Your task to perform on an android device: Open sound settings Image 0: 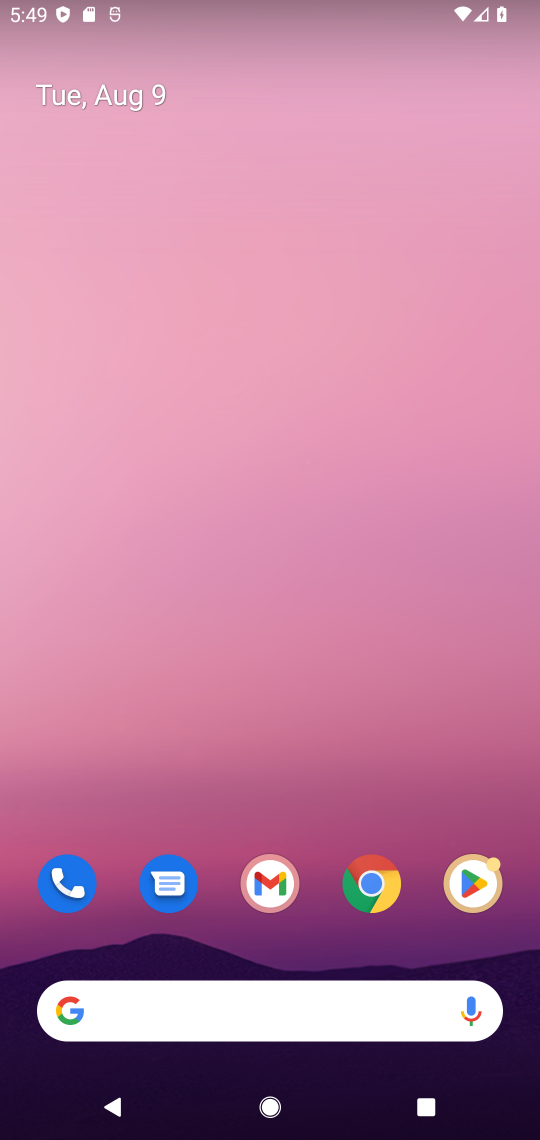
Step 0: drag from (227, 551) to (227, 190)
Your task to perform on an android device: Open sound settings Image 1: 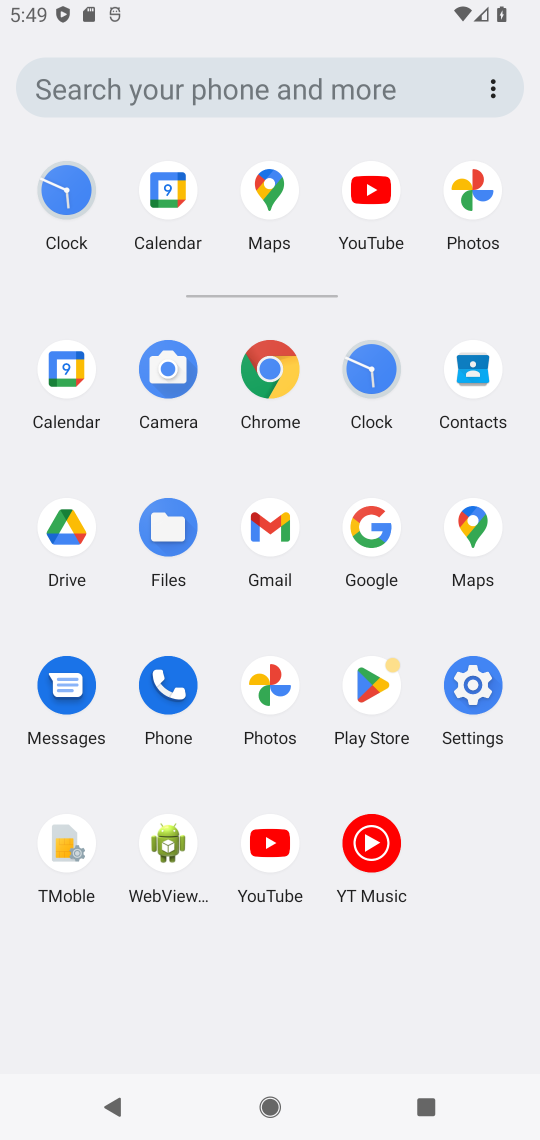
Step 1: click (458, 701)
Your task to perform on an android device: Open sound settings Image 2: 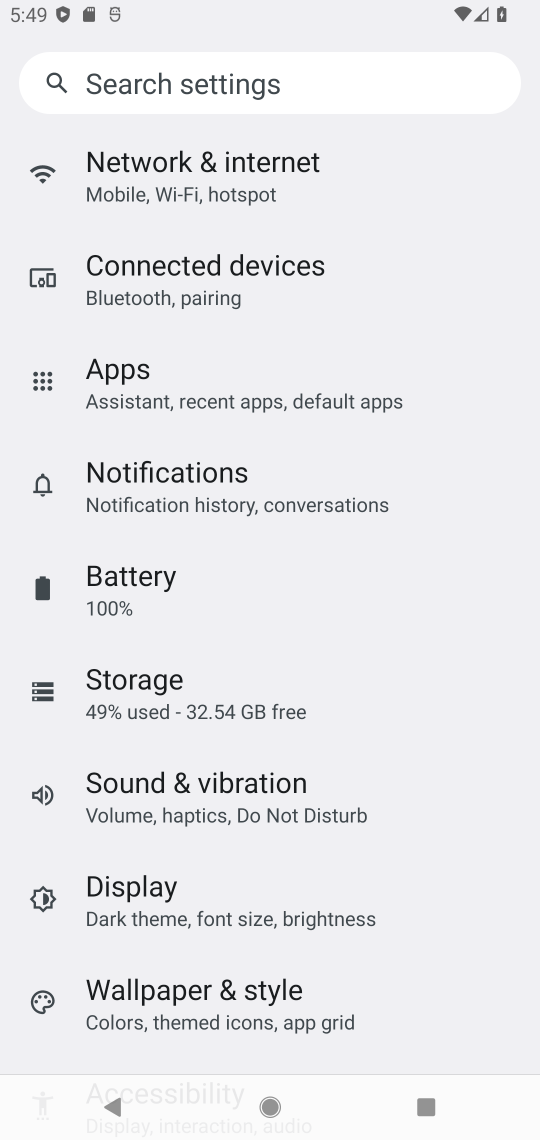
Step 2: drag from (243, 891) to (295, 464)
Your task to perform on an android device: Open sound settings Image 3: 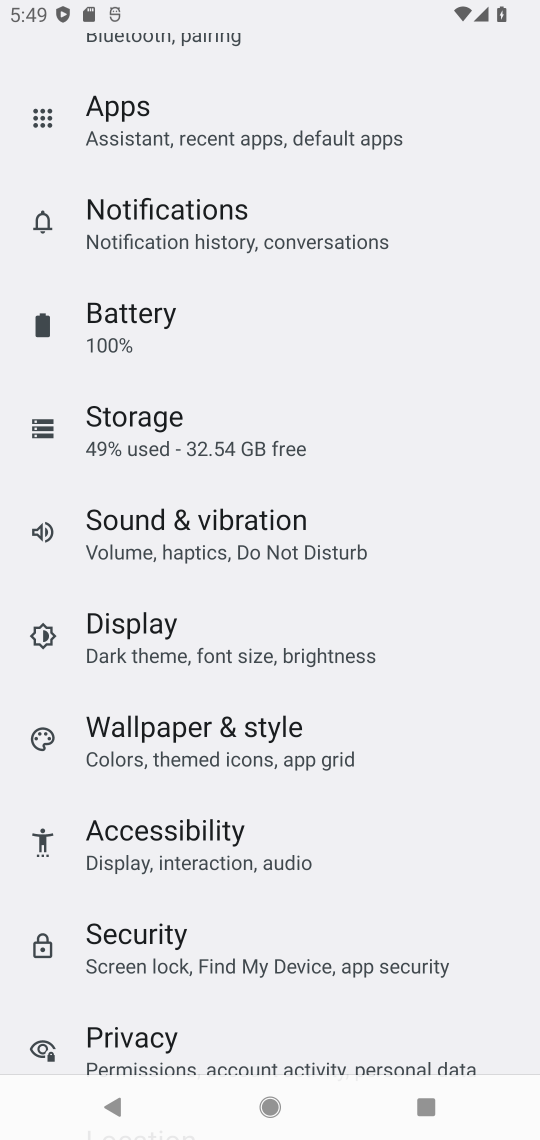
Step 3: drag from (241, 801) to (256, 294)
Your task to perform on an android device: Open sound settings Image 4: 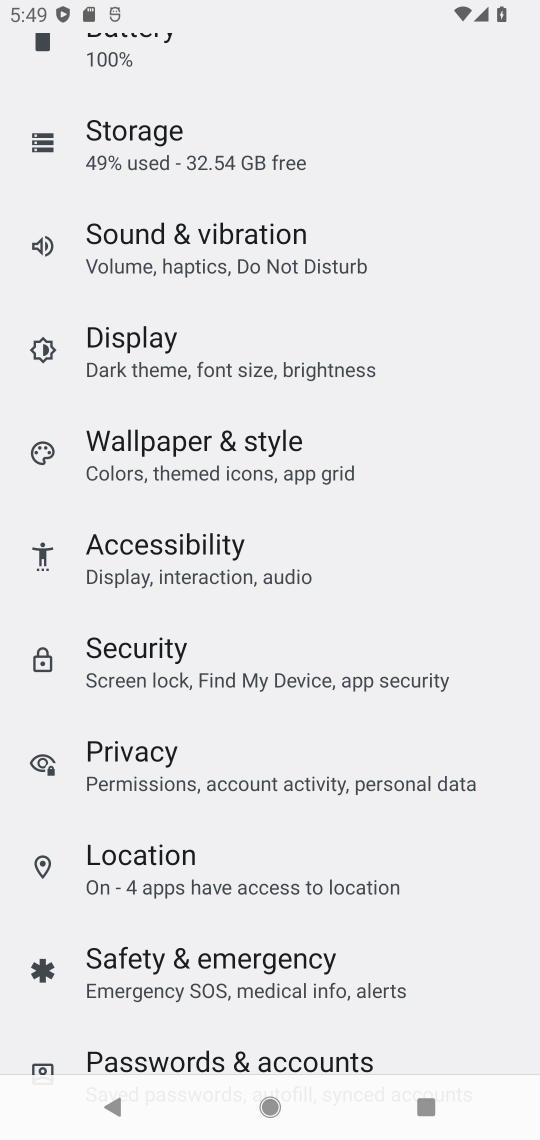
Step 4: drag from (300, 647) to (319, 297)
Your task to perform on an android device: Open sound settings Image 5: 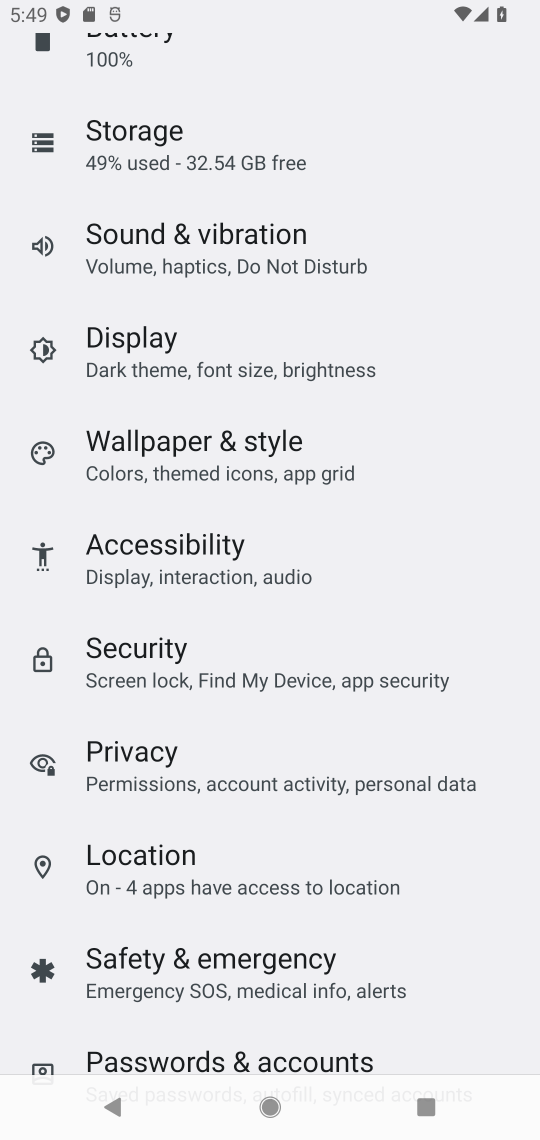
Step 5: drag from (321, 876) to (321, 934)
Your task to perform on an android device: Open sound settings Image 6: 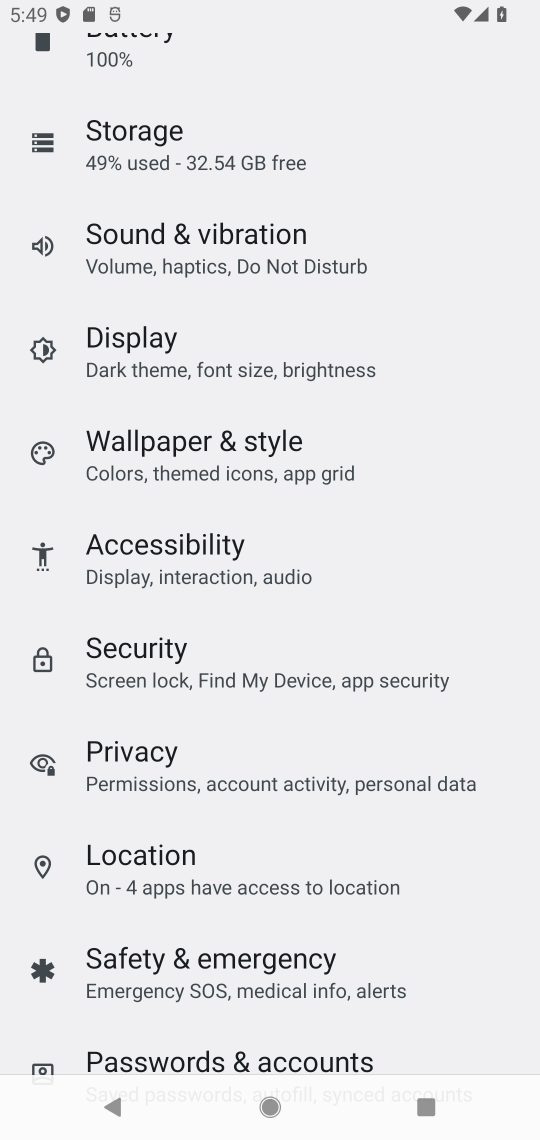
Step 6: drag from (253, 596) to (255, 897)
Your task to perform on an android device: Open sound settings Image 7: 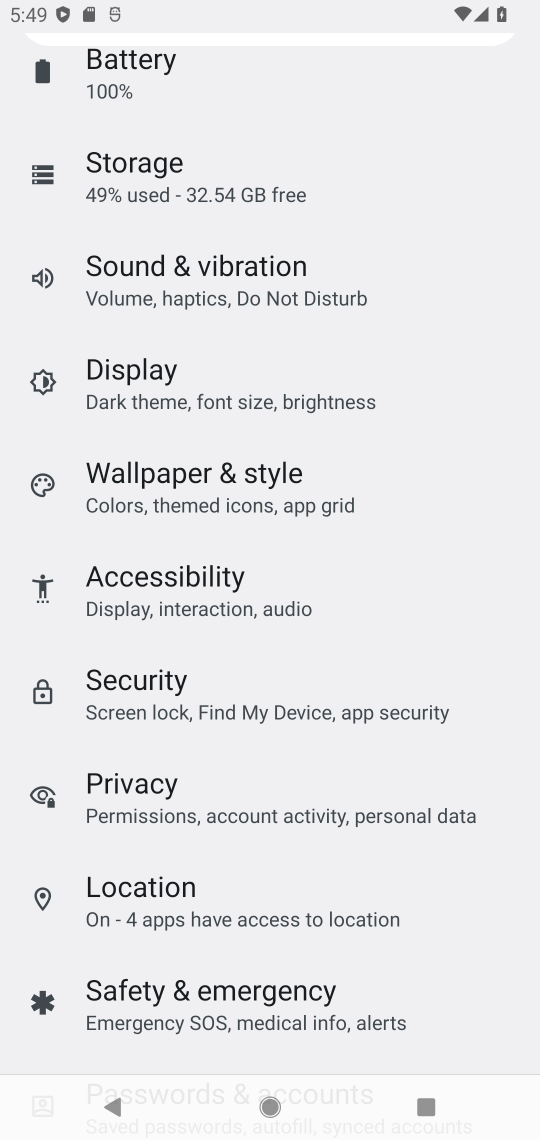
Step 7: drag from (278, 658) to (289, 969)
Your task to perform on an android device: Open sound settings Image 8: 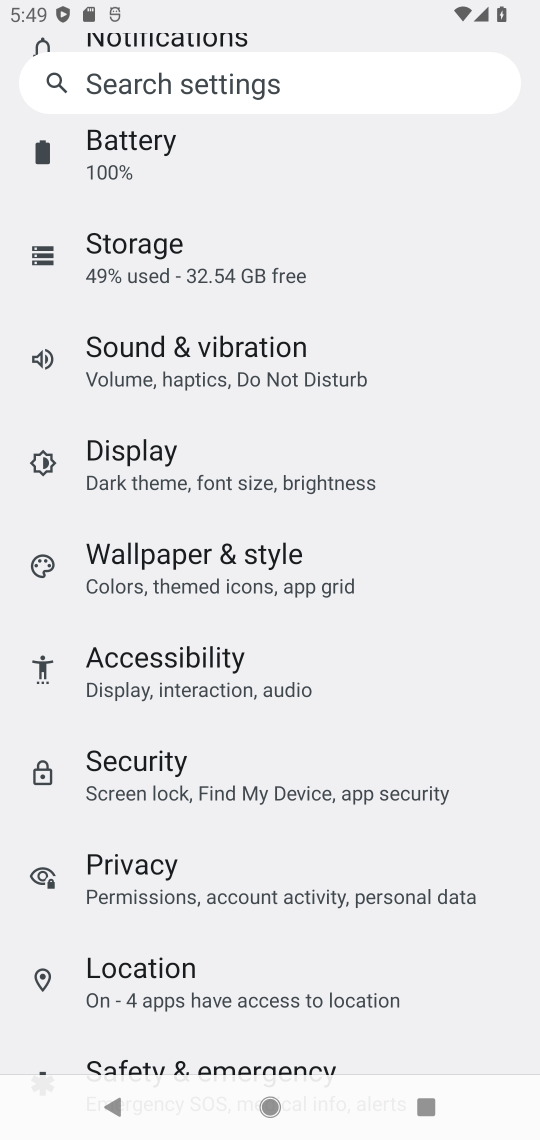
Step 8: drag from (236, 356) to (247, 791)
Your task to perform on an android device: Open sound settings Image 9: 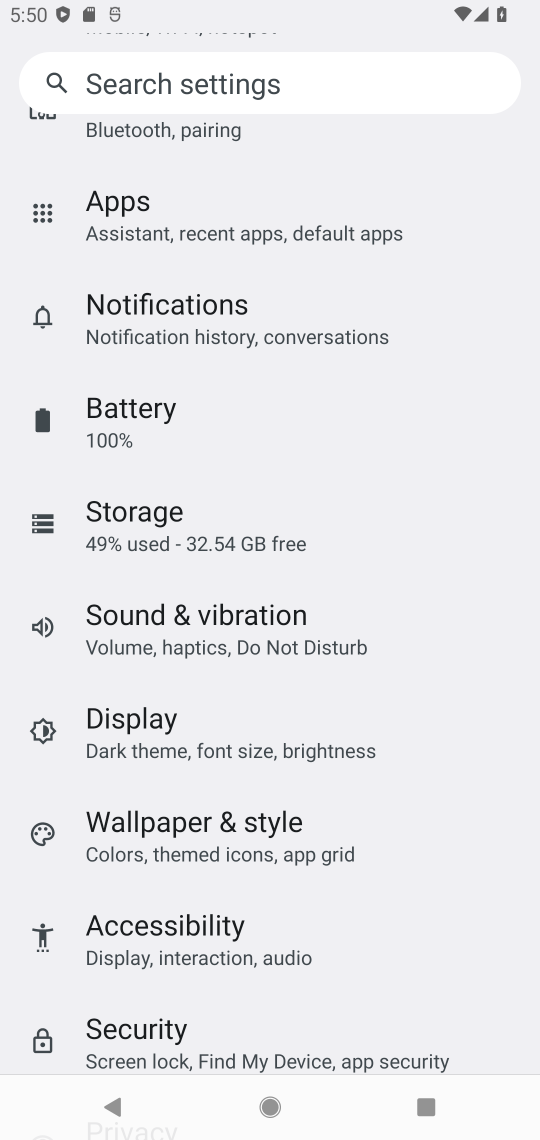
Step 9: click (210, 634)
Your task to perform on an android device: Open sound settings Image 10: 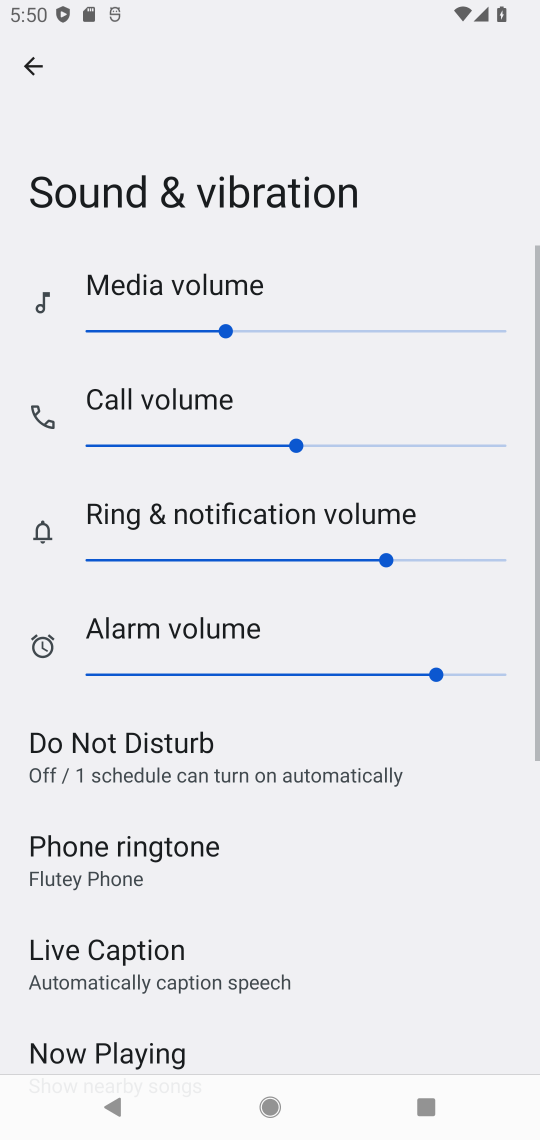
Step 10: task complete